Your task to perform on an android device: Open Chrome and go to the settings page Image 0: 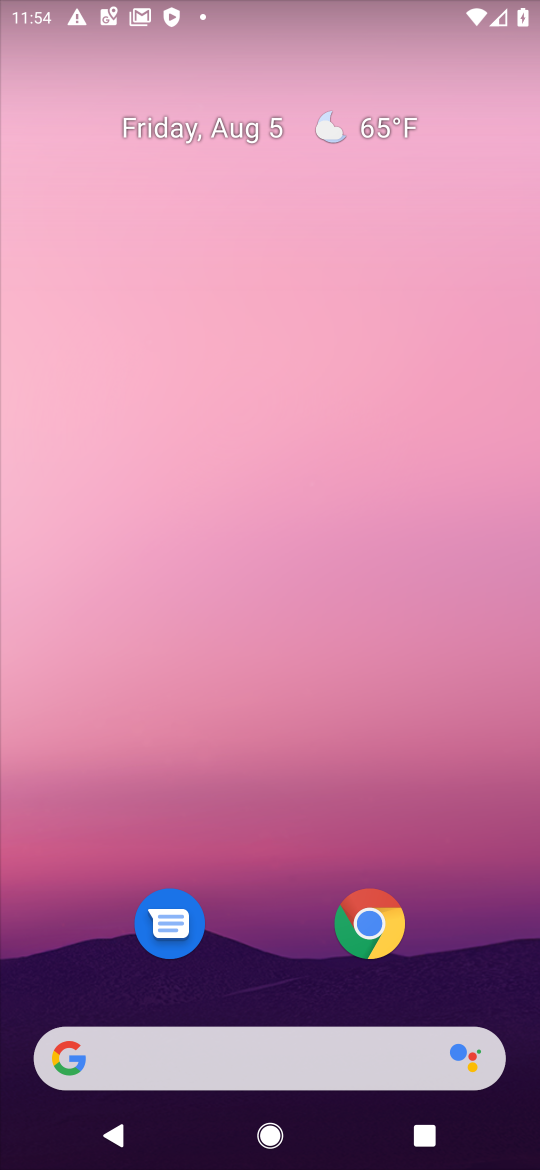
Step 0: click (233, 1047)
Your task to perform on an android device: Open Chrome and go to the settings page Image 1: 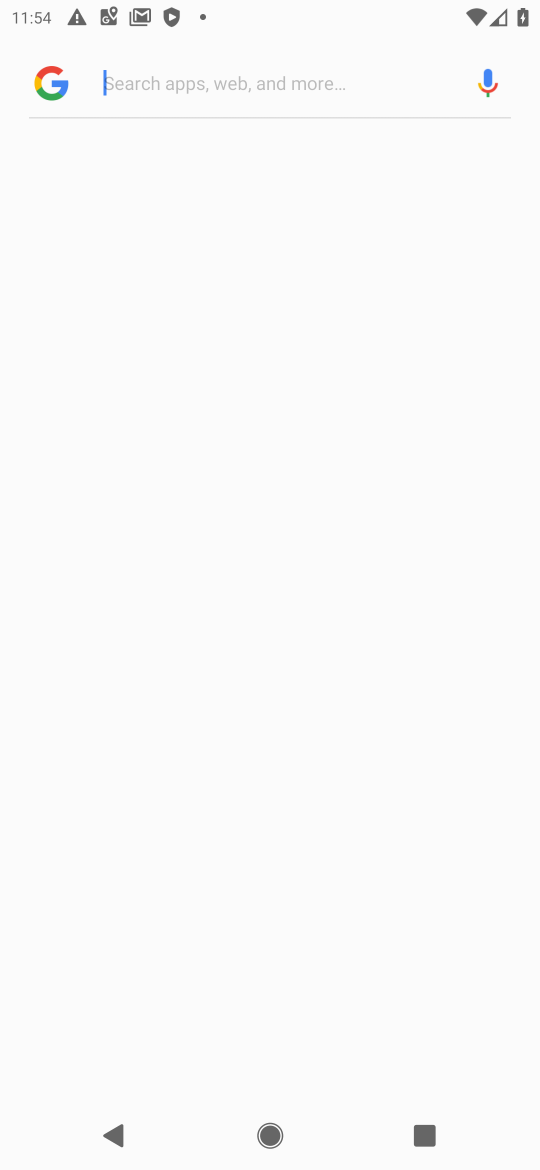
Step 1: drag from (233, 1047) to (193, 385)
Your task to perform on an android device: Open Chrome and go to the settings page Image 2: 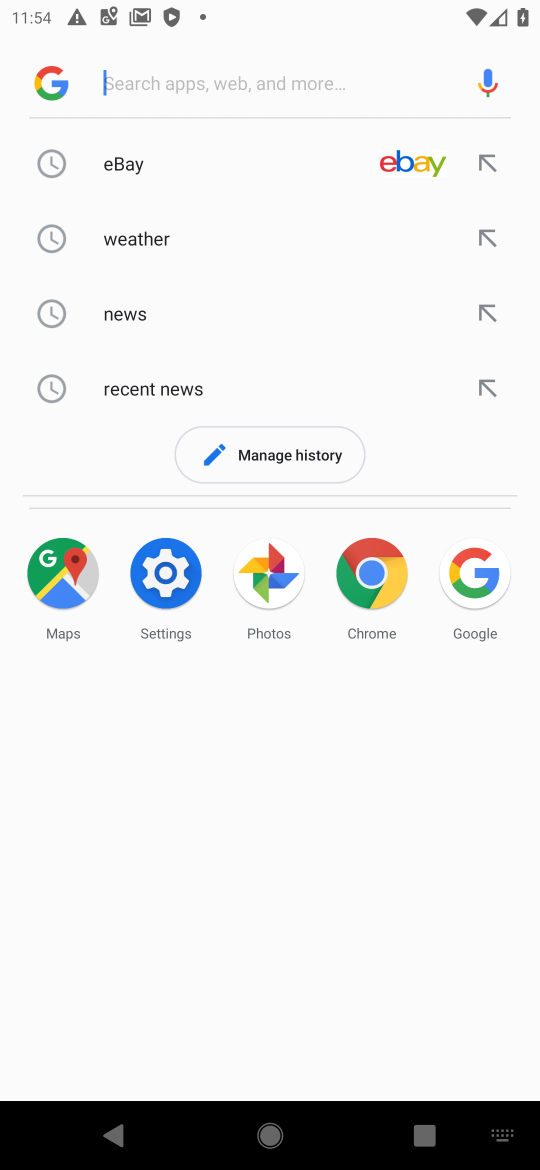
Step 2: click (395, 568)
Your task to perform on an android device: Open Chrome and go to the settings page Image 3: 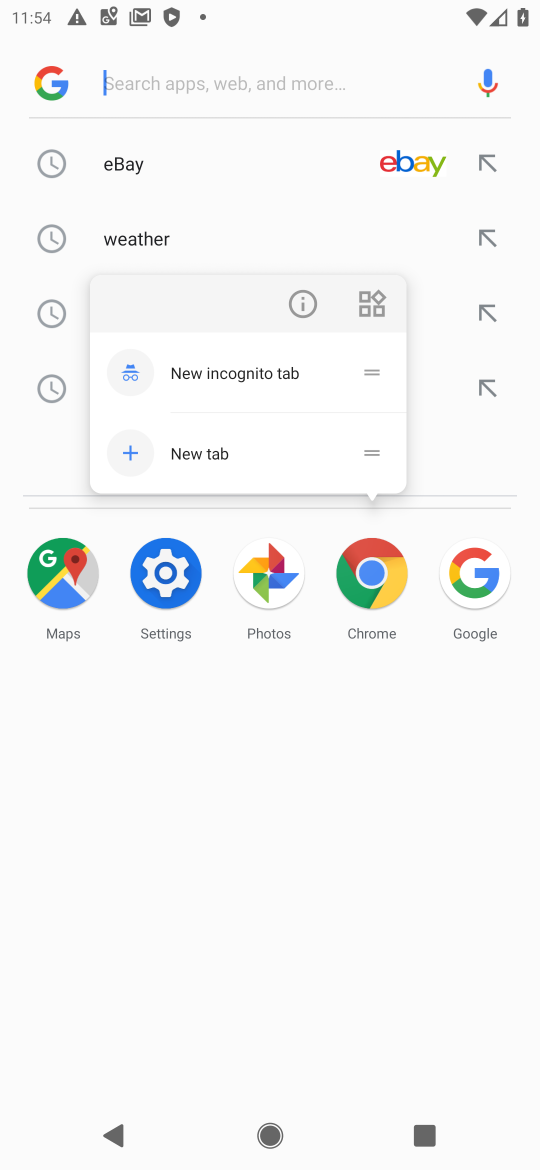
Step 3: click (395, 568)
Your task to perform on an android device: Open Chrome and go to the settings page Image 4: 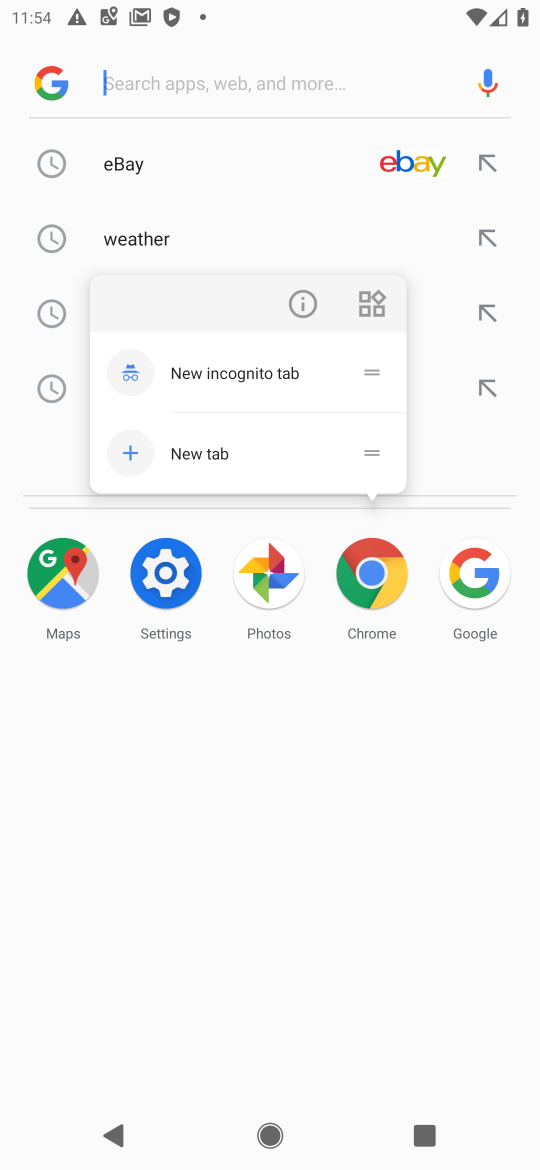
Step 4: click (395, 568)
Your task to perform on an android device: Open Chrome and go to the settings page Image 5: 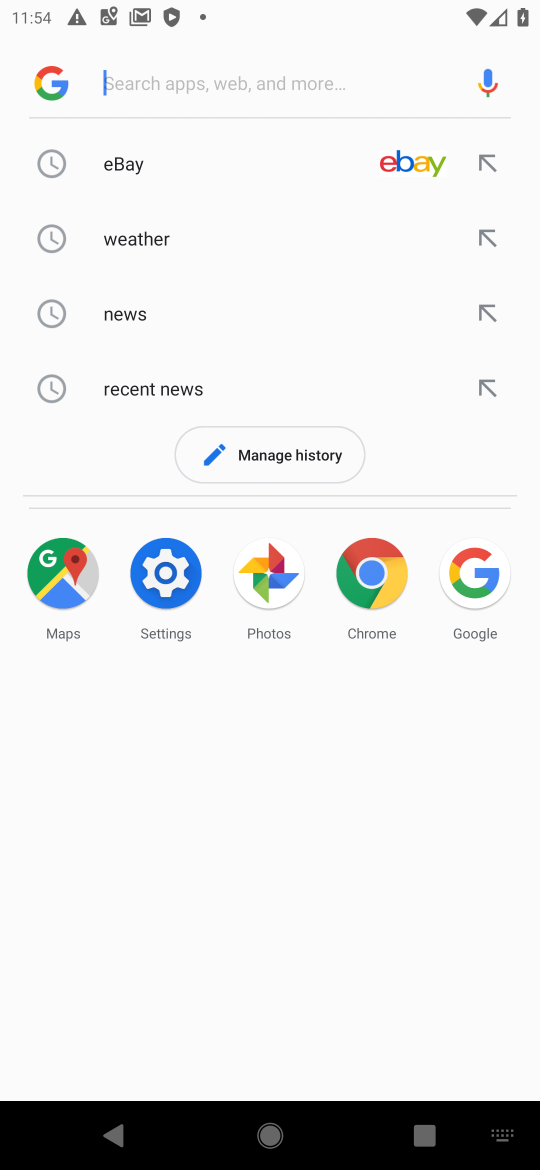
Step 5: click (383, 565)
Your task to perform on an android device: Open Chrome and go to the settings page Image 6: 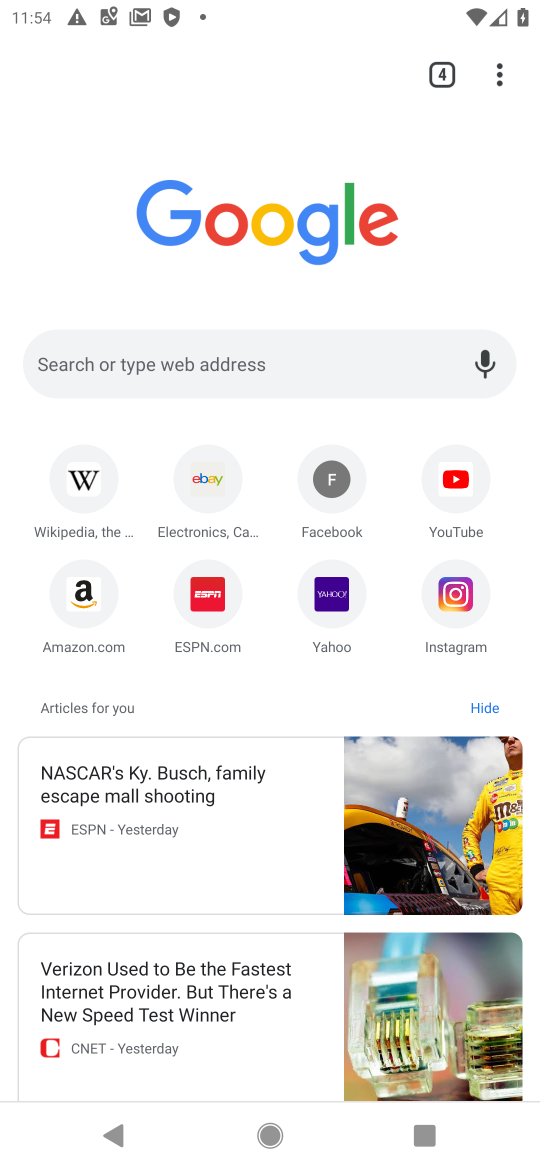
Step 6: drag from (502, 66) to (359, 623)
Your task to perform on an android device: Open Chrome and go to the settings page Image 7: 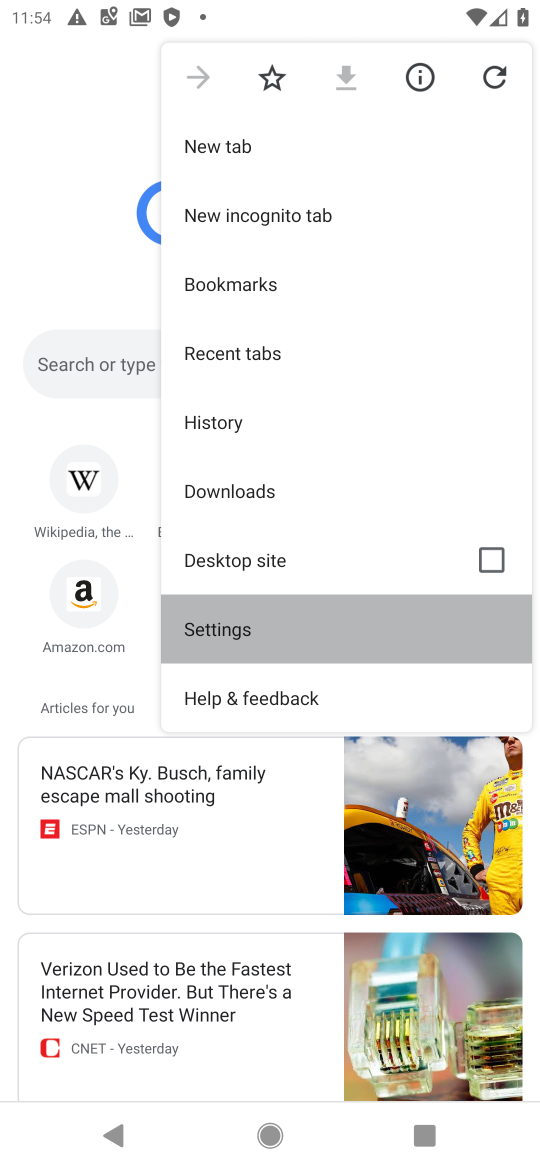
Step 7: click (359, 623)
Your task to perform on an android device: Open Chrome and go to the settings page Image 8: 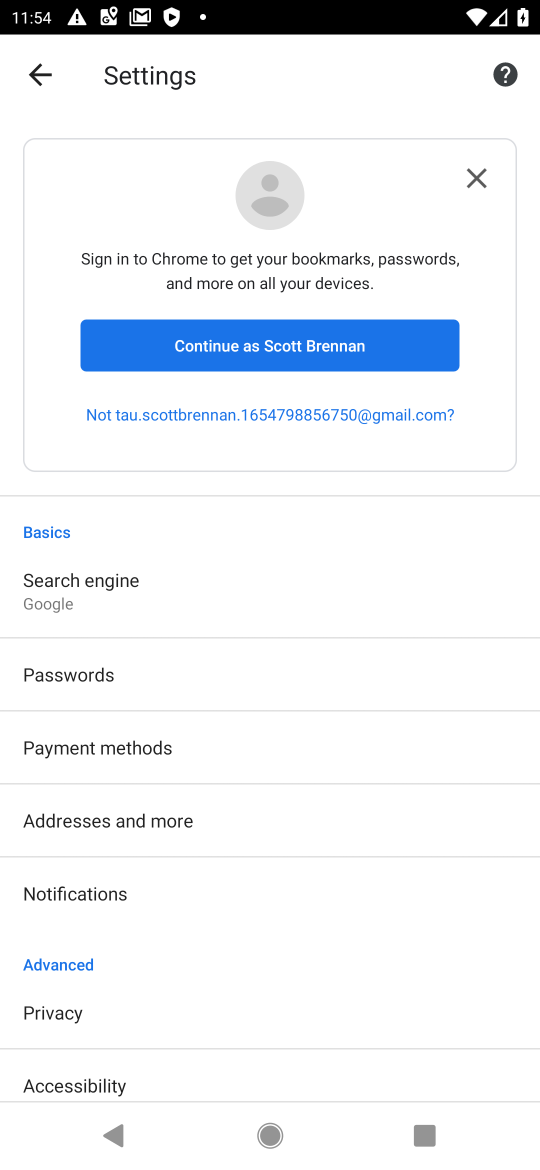
Step 8: task complete